Your task to perform on an android device: read, delete, or share a saved page in the chrome app Image 0: 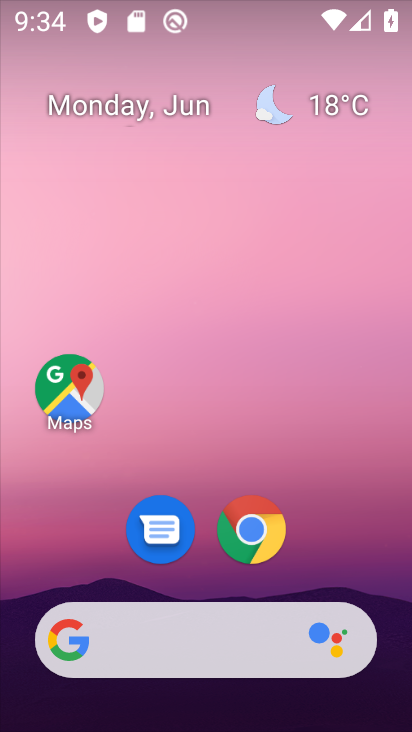
Step 0: drag from (181, 627) to (158, 21)
Your task to perform on an android device: read, delete, or share a saved page in the chrome app Image 1: 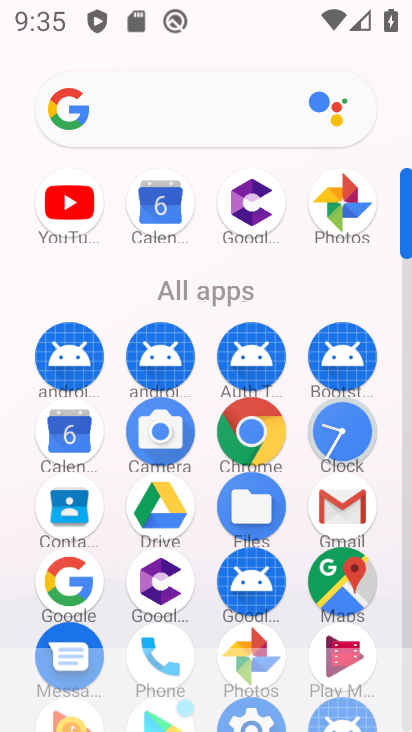
Step 1: click (261, 442)
Your task to perform on an android device: read, delete, or share a saved page in the chrome app Image 2: 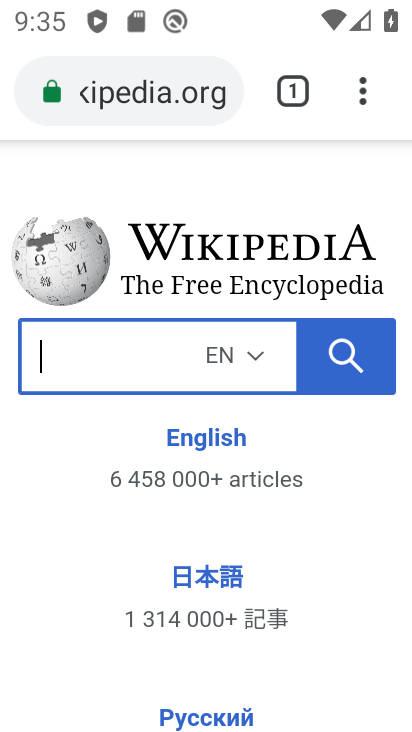
Step 2: drag from (360, 92) to (141, 342)
Your task to perform on an android device: read, delete, or share a saved page in the chrome app Image 3: 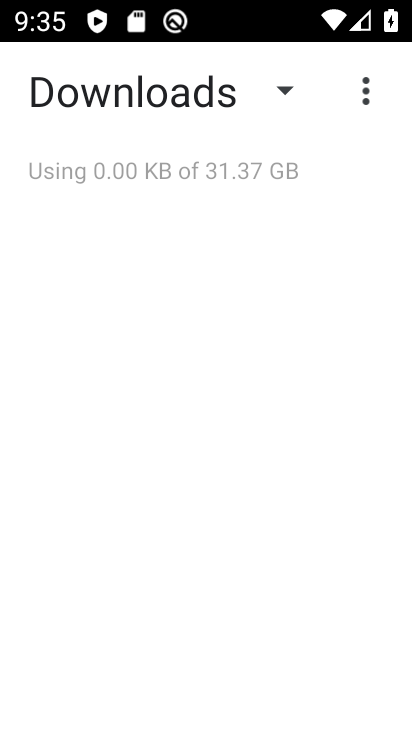
Step 3: click (268, 93)
Your task to perform on an android device: read, delete, or share a saved page in the chrome app Image 4: 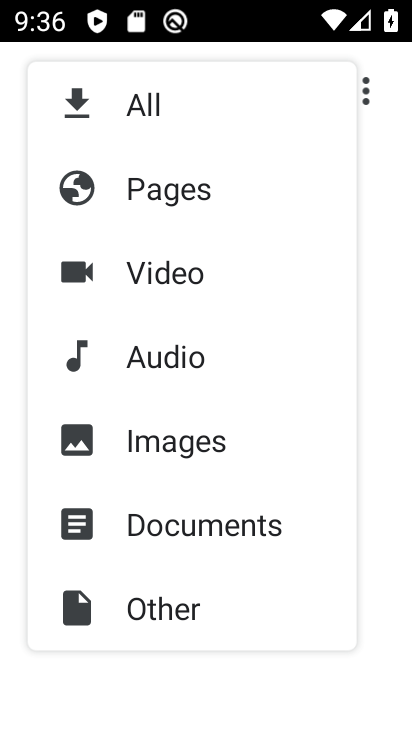
Step 4: click (157, 189)
Your task to perform on an android device: read, delete, or share a saved page in the chrome app Image 5: 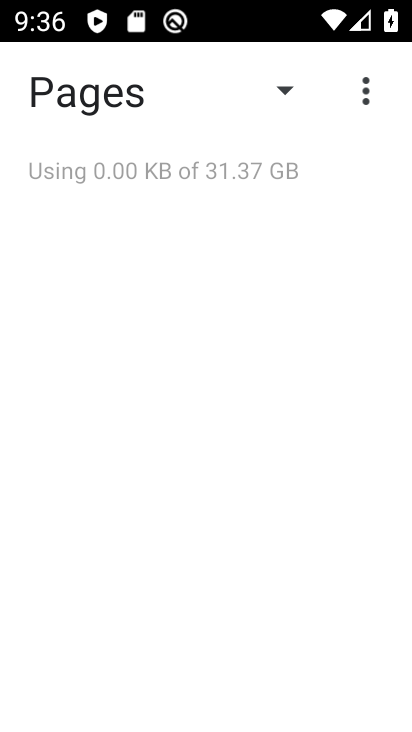
Step 5: task complete